Your task to perform on an android device: install app "Contacts" Image 0: 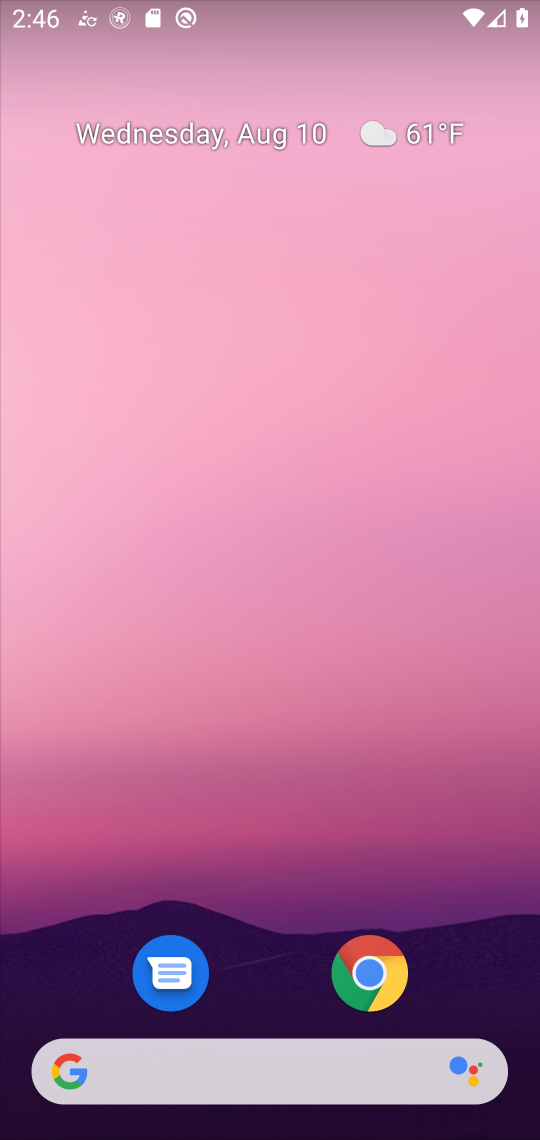
Step 0: drag from (241, 935) to (271, 154)
Your task to perform on an android device: install app "Contacts" Image 1: 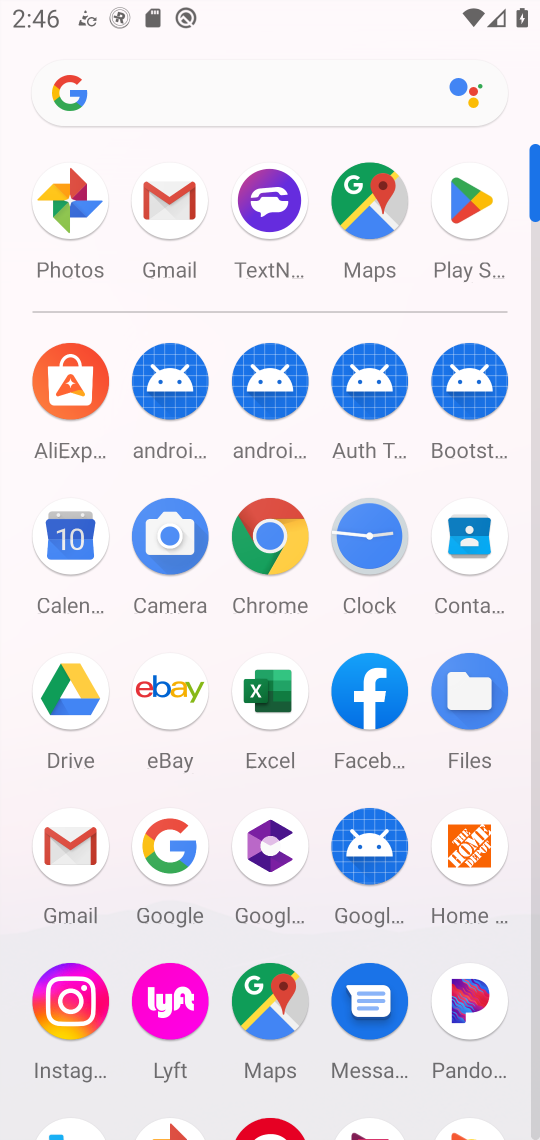
Step 1: click (440, 184)
Your task to perform on an android device: install app "Contacts" Image 2: 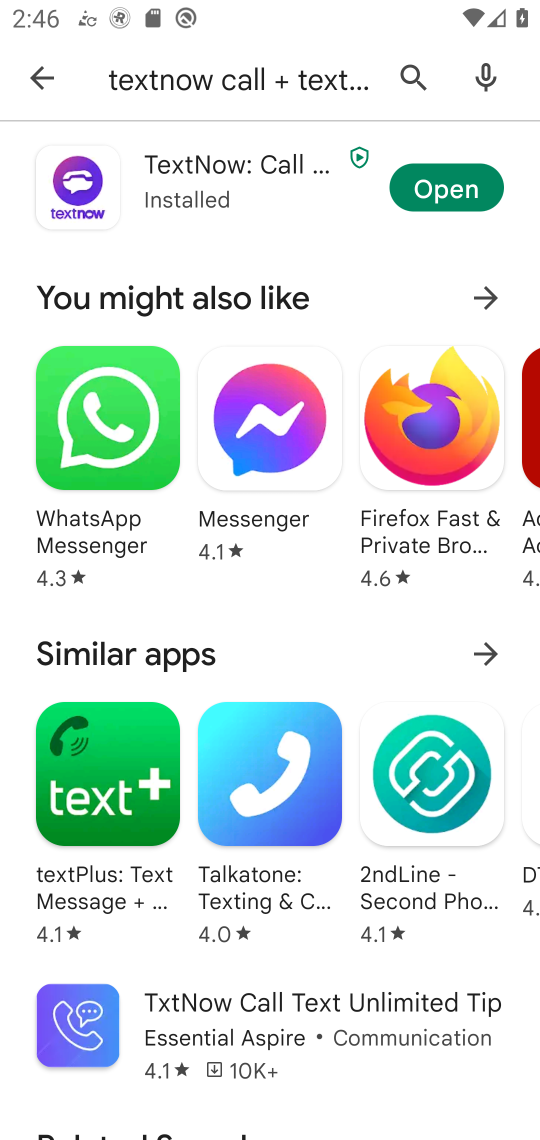
Step 2: click (58, 92)
Your task to perform on an android device: install app "Contacts" Image 3: 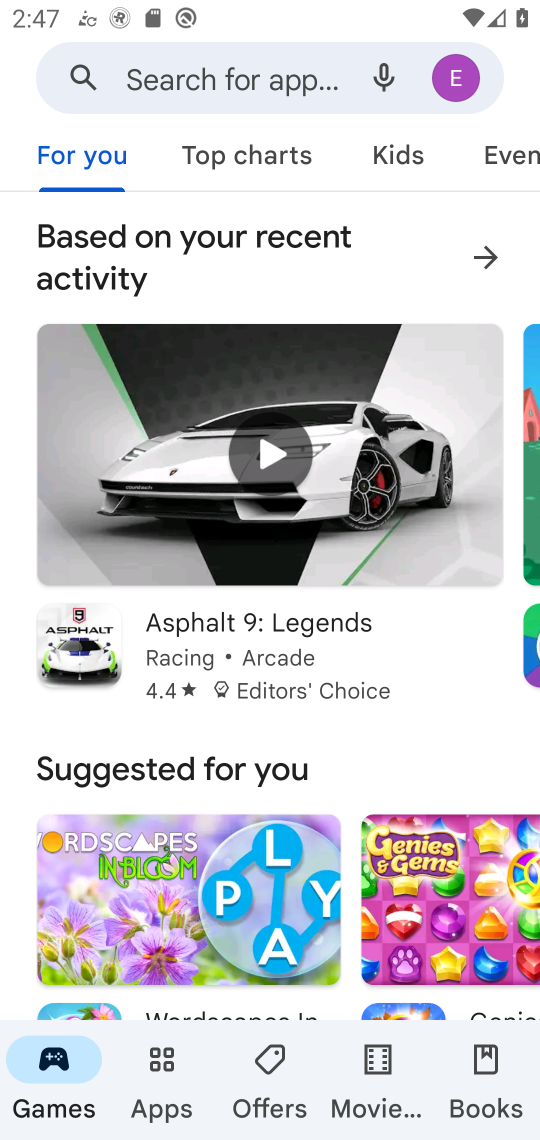
Step 3: click (154, 78)
Your task to perform on an android device: install app "Contacts" Image 4: 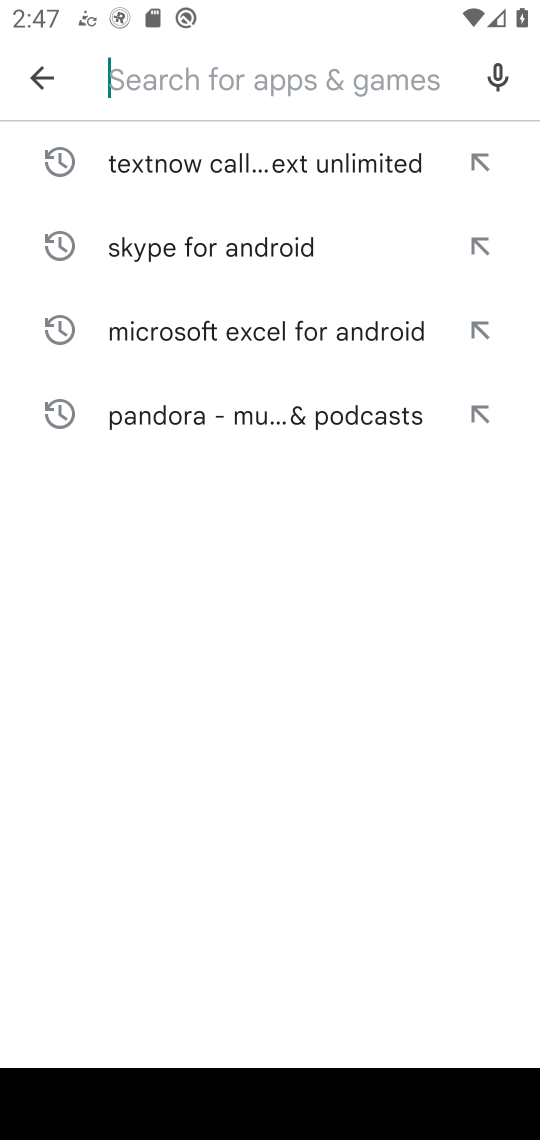
Step 4: type "Contacts "
Your task to perform on an android device: install app "Contacts" Image 5: 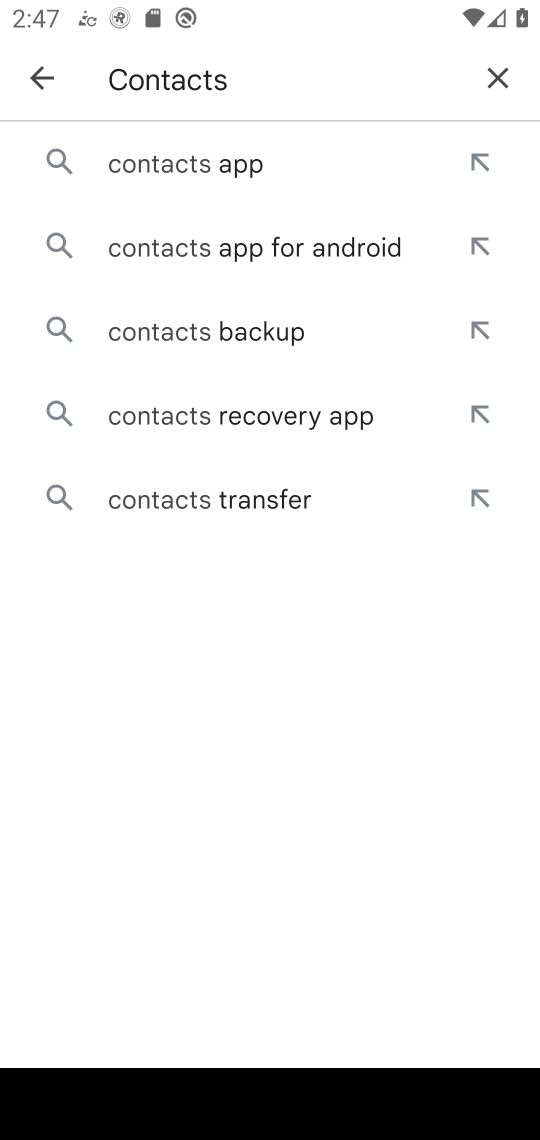
Step 5: click (198, 168)
Your task to perform on an android device: install app "Contacts" Image 6: 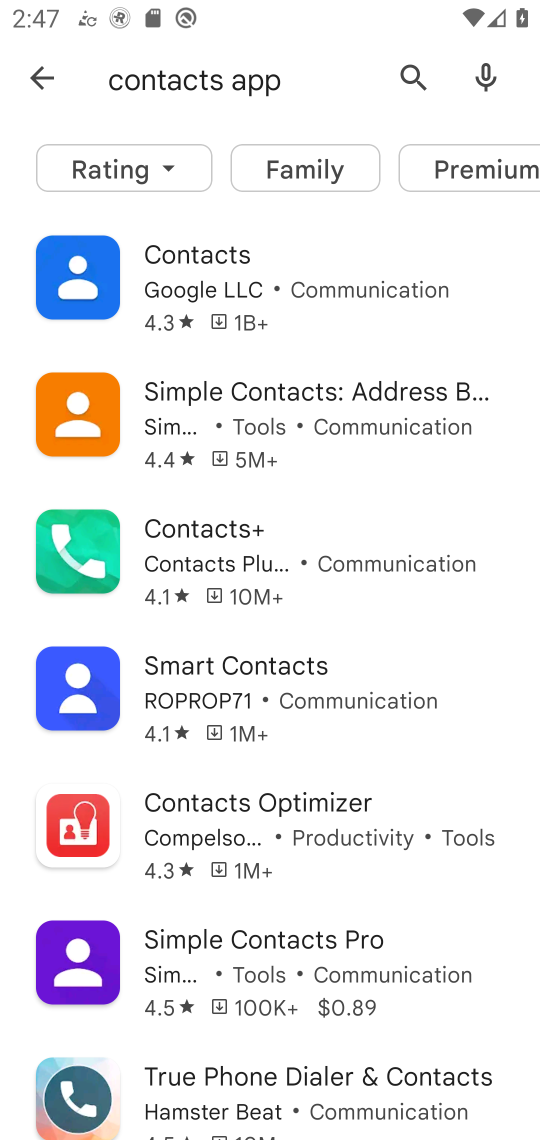
Step 6: click (275, 278)
Your task to perform on an android device: install app "Contacts" Image 7: 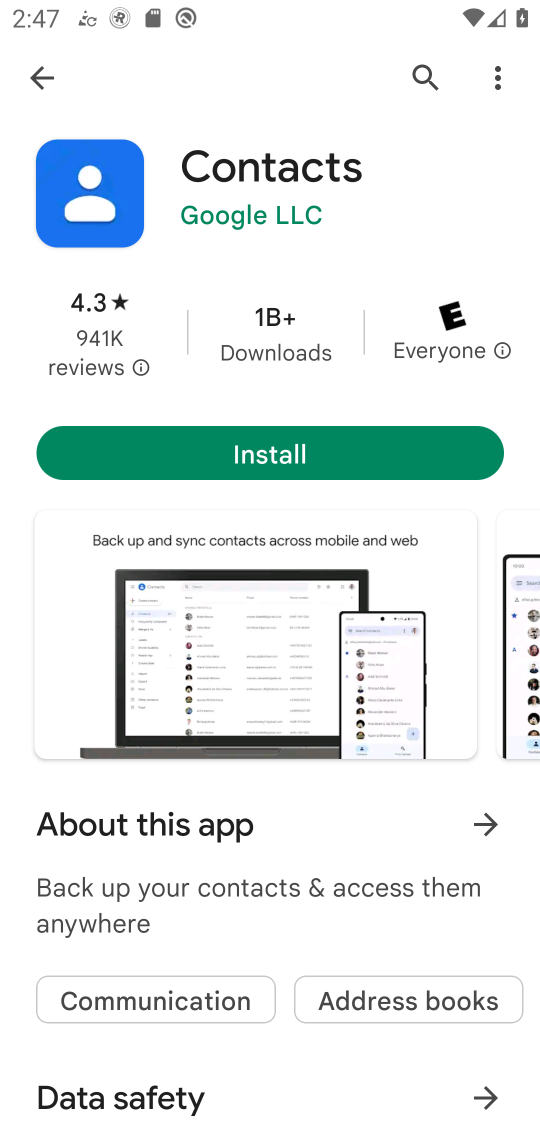
Step 7: click (213, 460)
Your task to perform on an android device: install app "Contacts" Image 8: 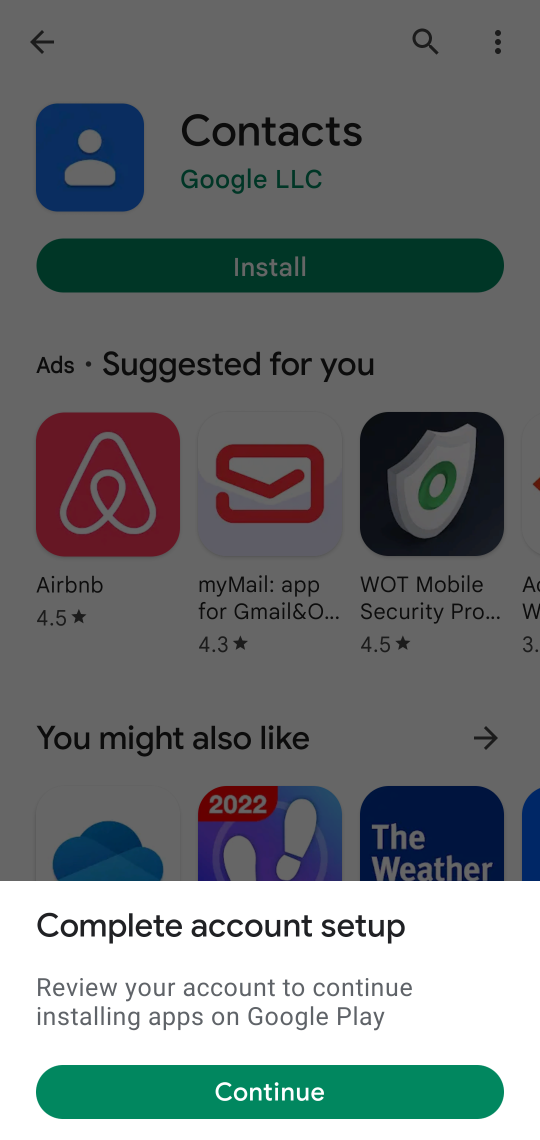
Step 8: click (244, 1115)
Your task to perform on an android device: install app "Contacts" Image 9: 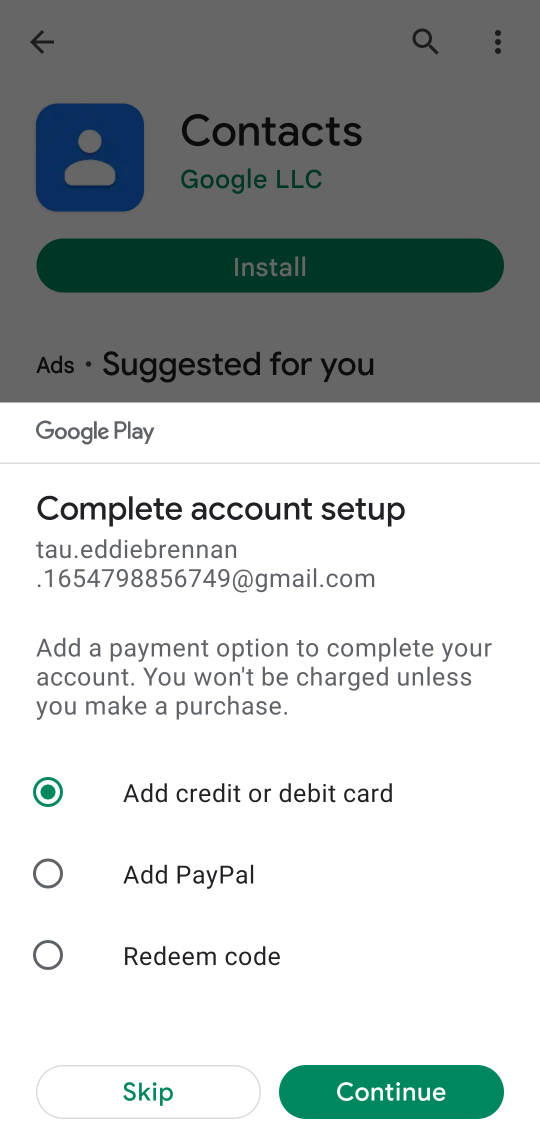
Step 9: task complete